Your task to perform on an android device: clear all cookies in the chrome app Image 0: 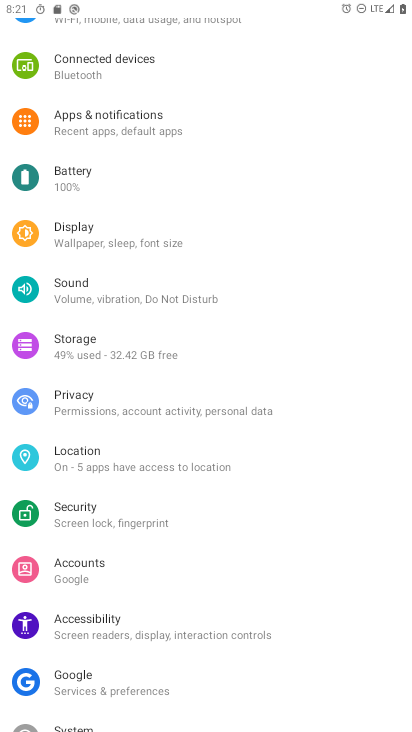
Step 0: press home button
Your task to perform on an android device: clear all cookies in the chrome app Image 1: 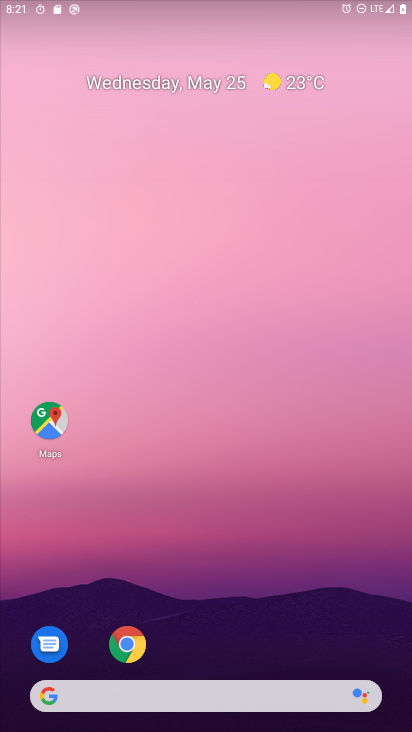
Step 1: drag from (379, 635) to (295, 8)
Your task to perform on an android device: clear all cookies in the chrome app Image 2: 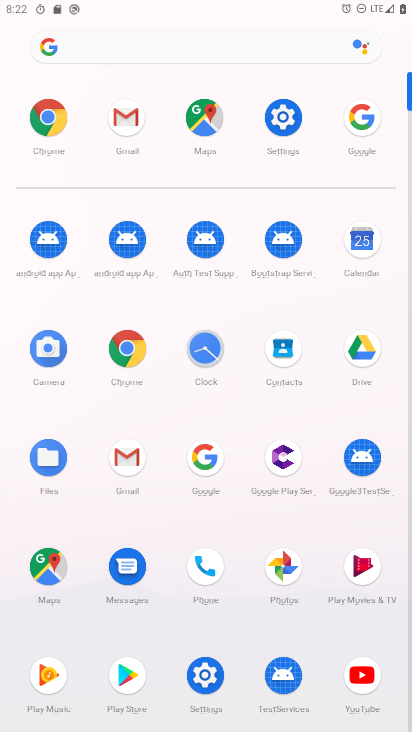
Step 2: click (55, 134)
Your task to perform on an android device: clear all cookies in the chrome app Image 3: 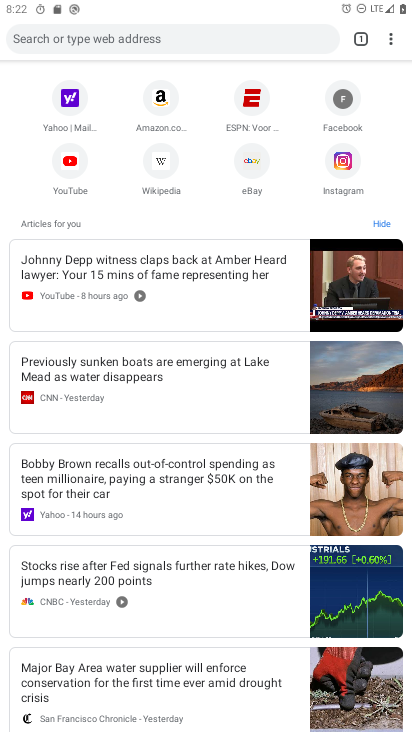
Step 3: click (393, 38)
Your task to perform on an android device: clear all cookies in the chrome app Image 4: 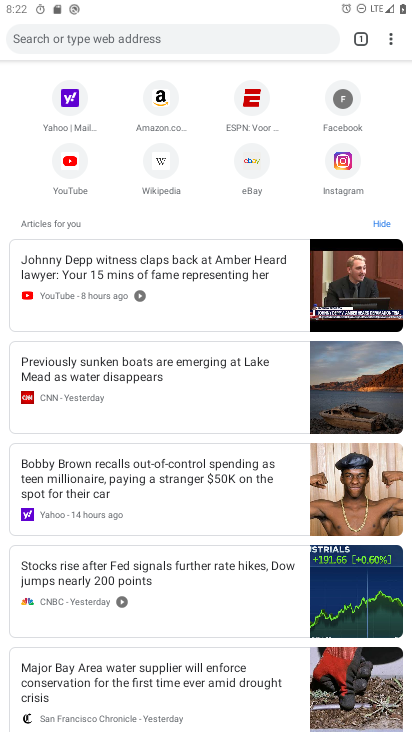
Step 4: click (393, 38)
Your task to perform on an android device: clear all cookies in the chrome app Image 5: 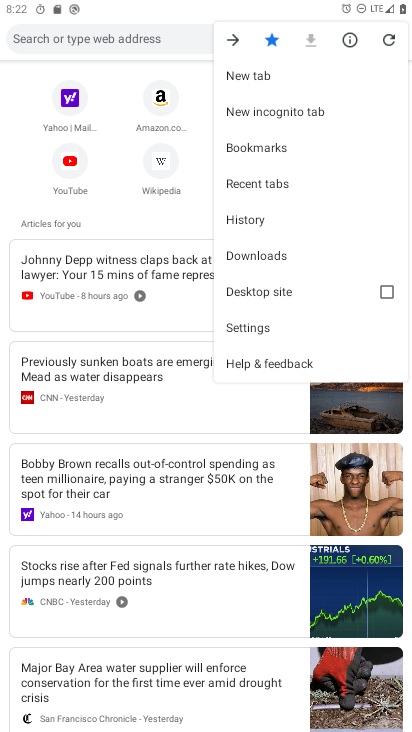
Step 5: click (263, 212)
Your task to perform on an android device: clear all cookies in the chrome app Image 6: 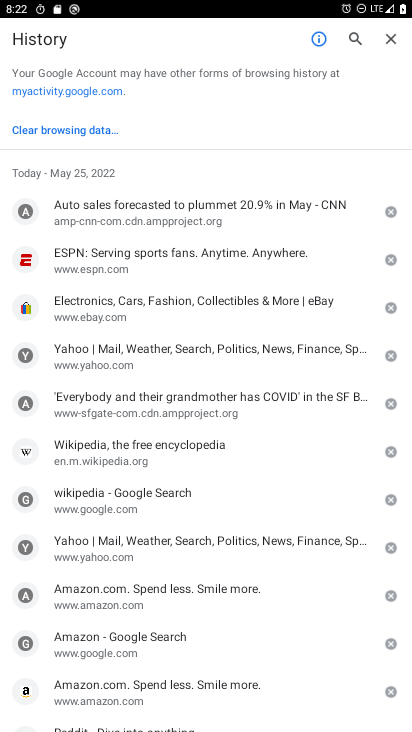
Step 6: click (73, 131)
Your task to perform on an android device: clear all cookies in the chrome app Image 7: 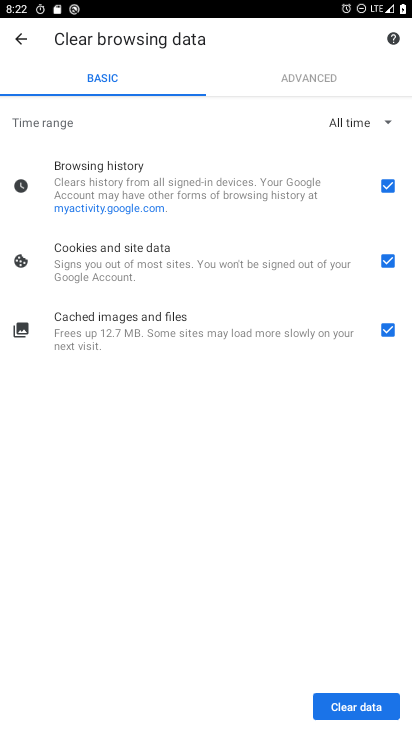
Step 7: click (362, 709)
Your task to perform on an android device: clear all cookies in the chrome app Image 8: 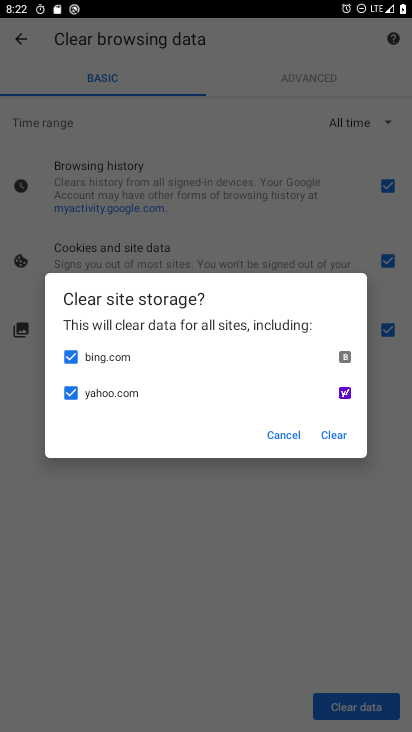
Step 8: click (340, 435)
Your task to perform on an android device: clear all cookies in the chrome app Image 9: 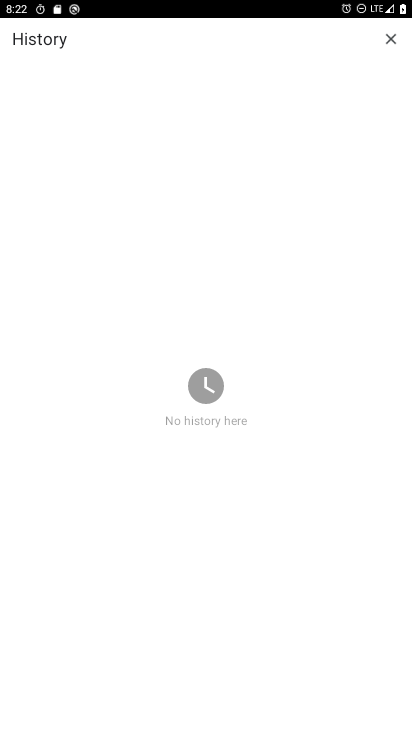
Step 9: task complete